Your task to perform on an android device: Open calendar and show me the third week of next month Image 0: 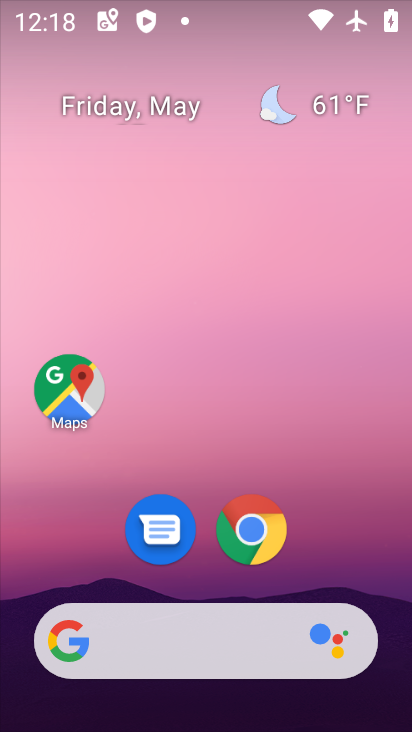
Step 0: drag from (350, 558) to (277, 6)
Your task to perform on an android device: Open calendar and show me the third week of next month Image 1: 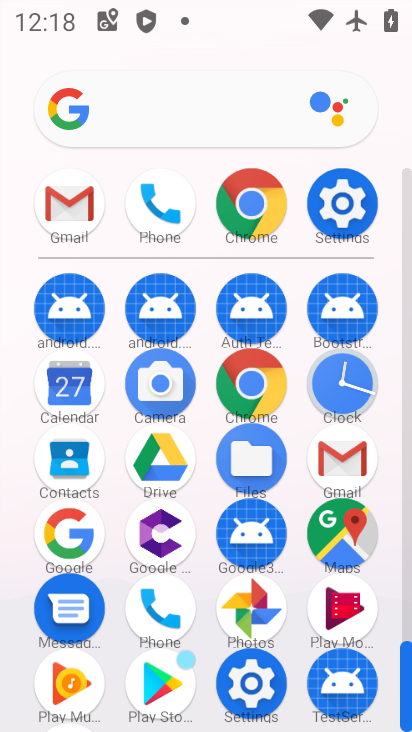
Step 1: click (75, 389)
Your task to perform on an android device: Open calendar and show me the third week of next month Image 2: 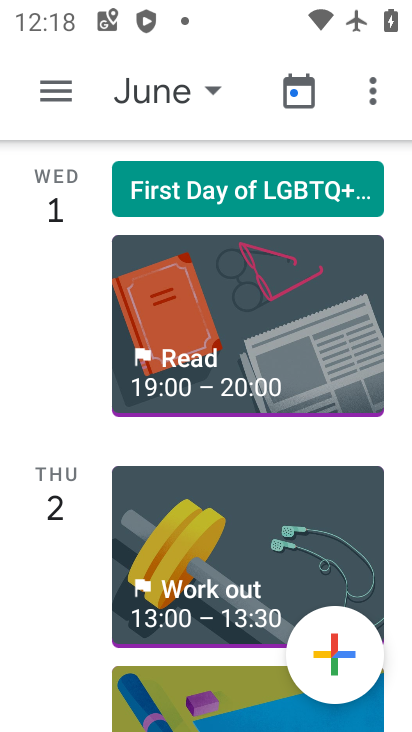
Step 2: click (376, 87)
Your task to perform on an android device: Open calendar and show me the third week of next month Image 3: 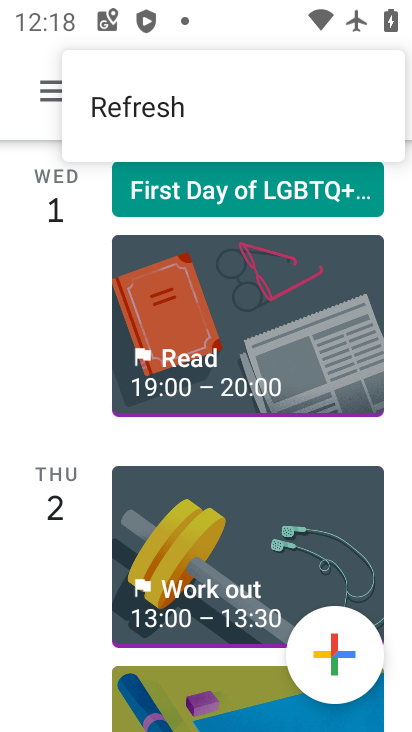
Step 3: click (11, 201)
Your task to perform on an android device: Open calendar and show me the third week of next month Image 4: 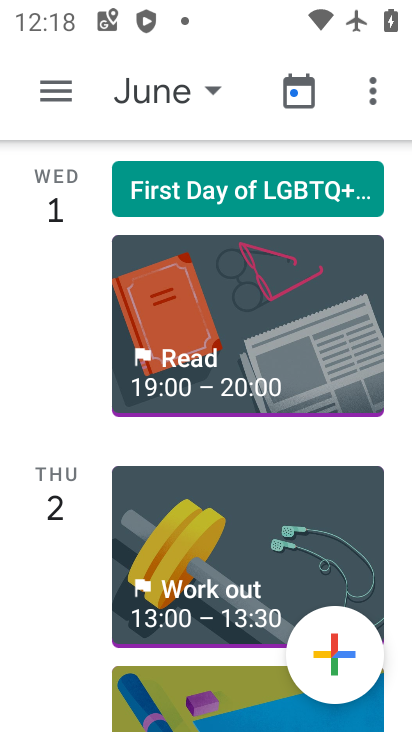
Step 4: click (150, 99)
Your task to perform on an android device: Open calendar and show me the third week of next month Image 5: 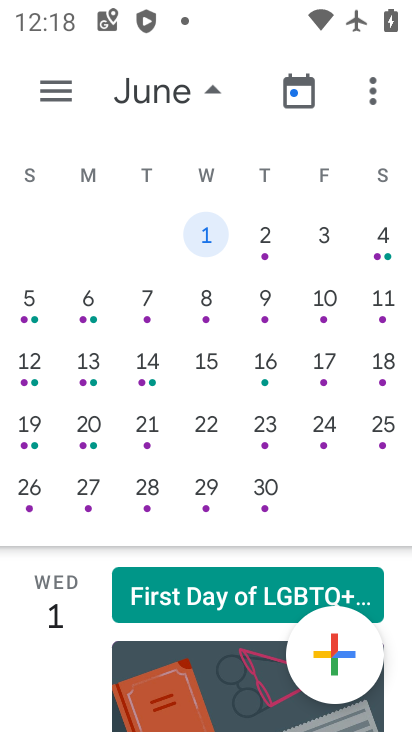
Step 5: click (242, 429)
Your task to perform on an android device: Open calendar and show me the third week of next month Image 6: 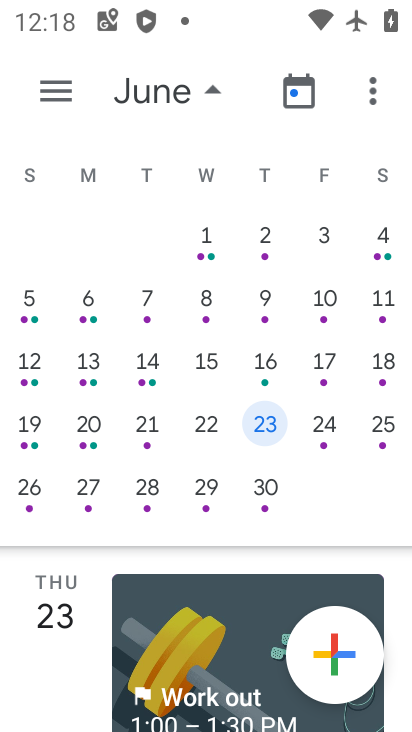
Step 6: task complete